Your task to perform on an android device: open app "TextNow: Call + Text Unlimited" (install if not already installed) Image 0: 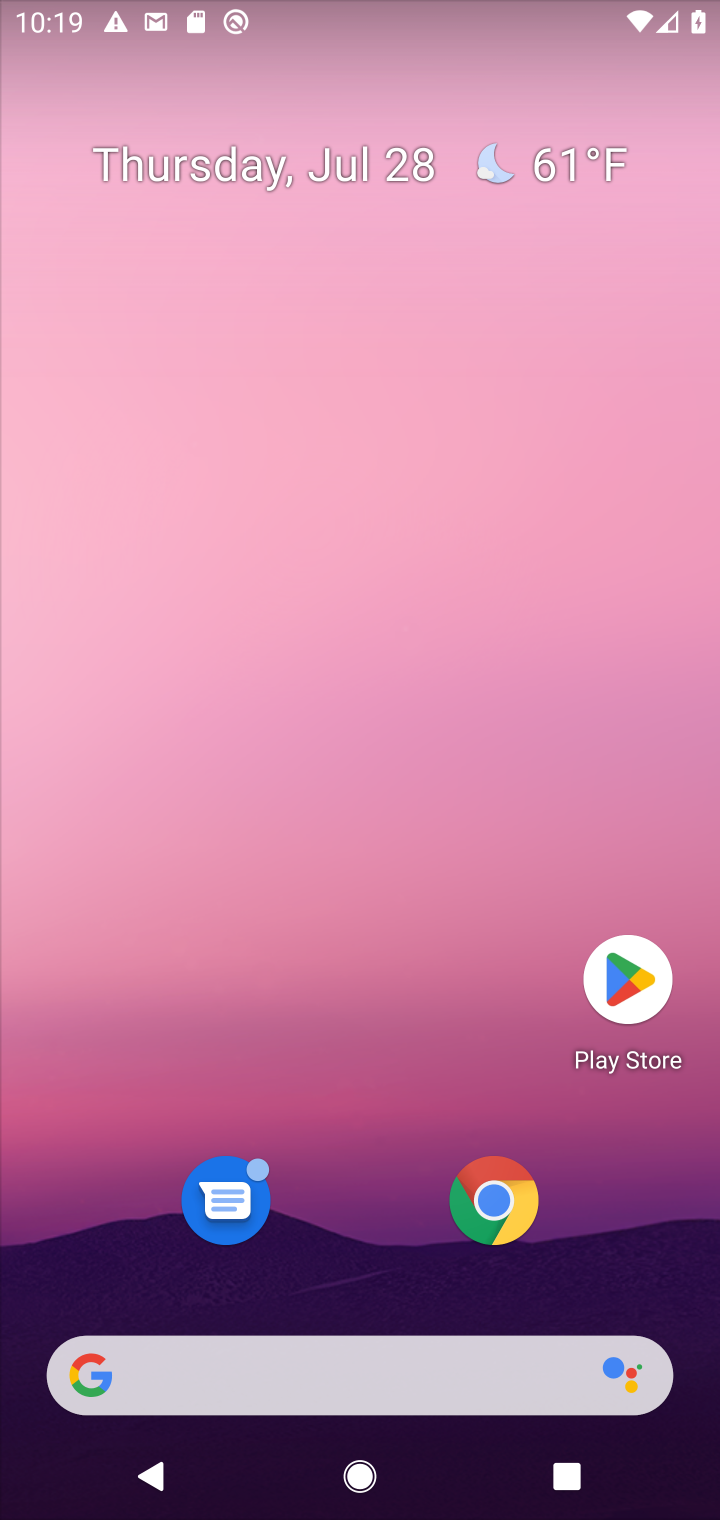
Step 0: press home button
Your task to perform on an android device: open app "TextNow: Call + Text Unlimited" (install if not already installed) Image 1: 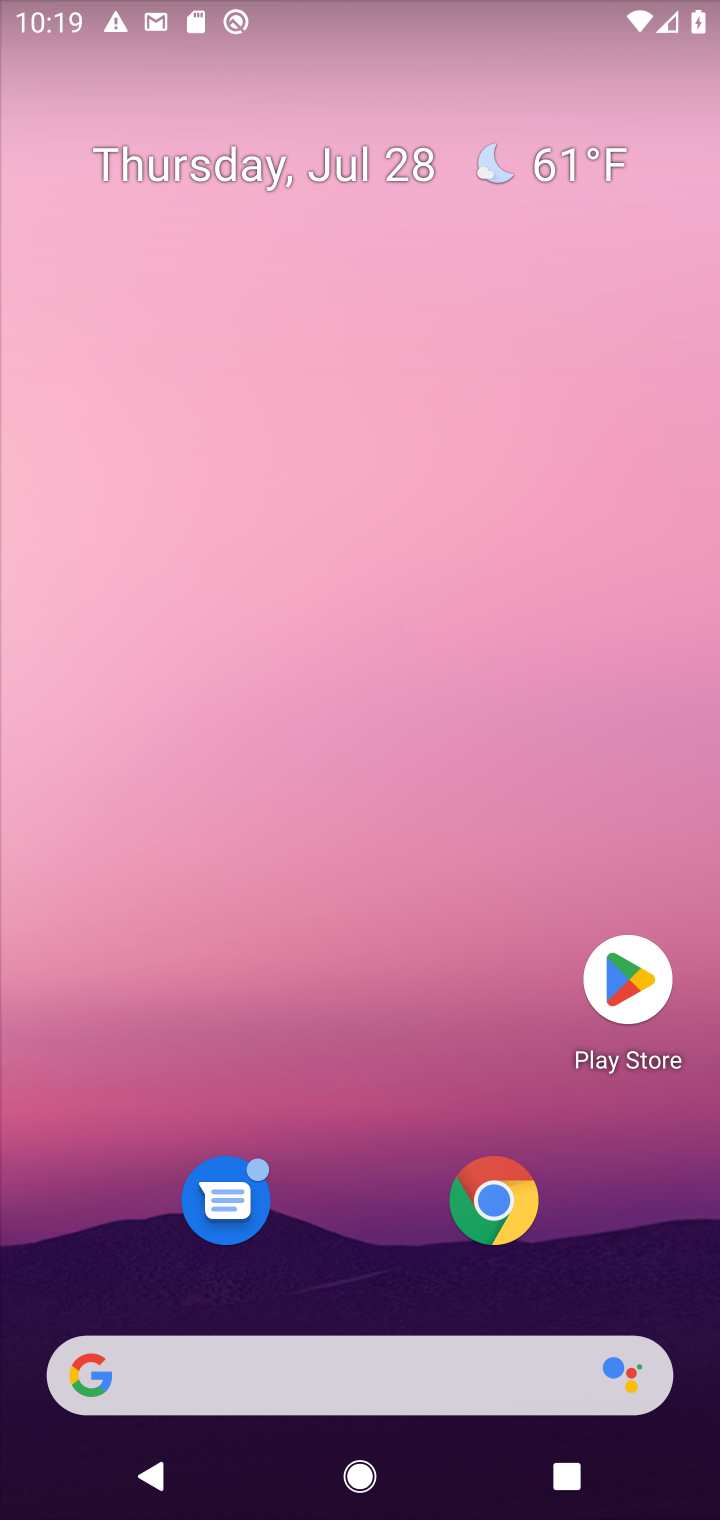
Step 1: click (625, 984)
Your task to perform on an android device: open app "TextNow: Call + Text Unlimited" (install if not already installed) Image 2: 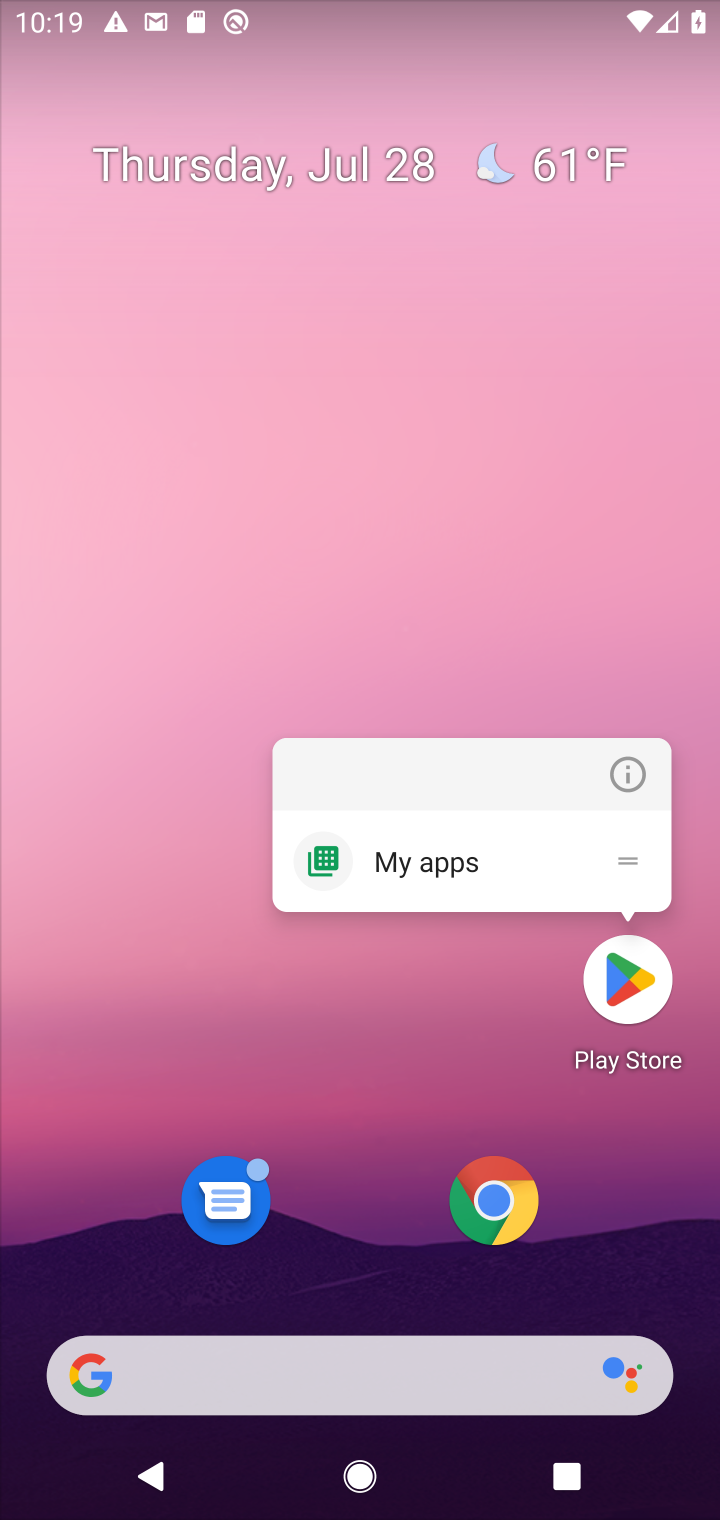
Step 2: click (625, 995)
Your task to perform on an android device: open app "TextNow: Call + Text Unlimited" (install if not already installed) Image 3: 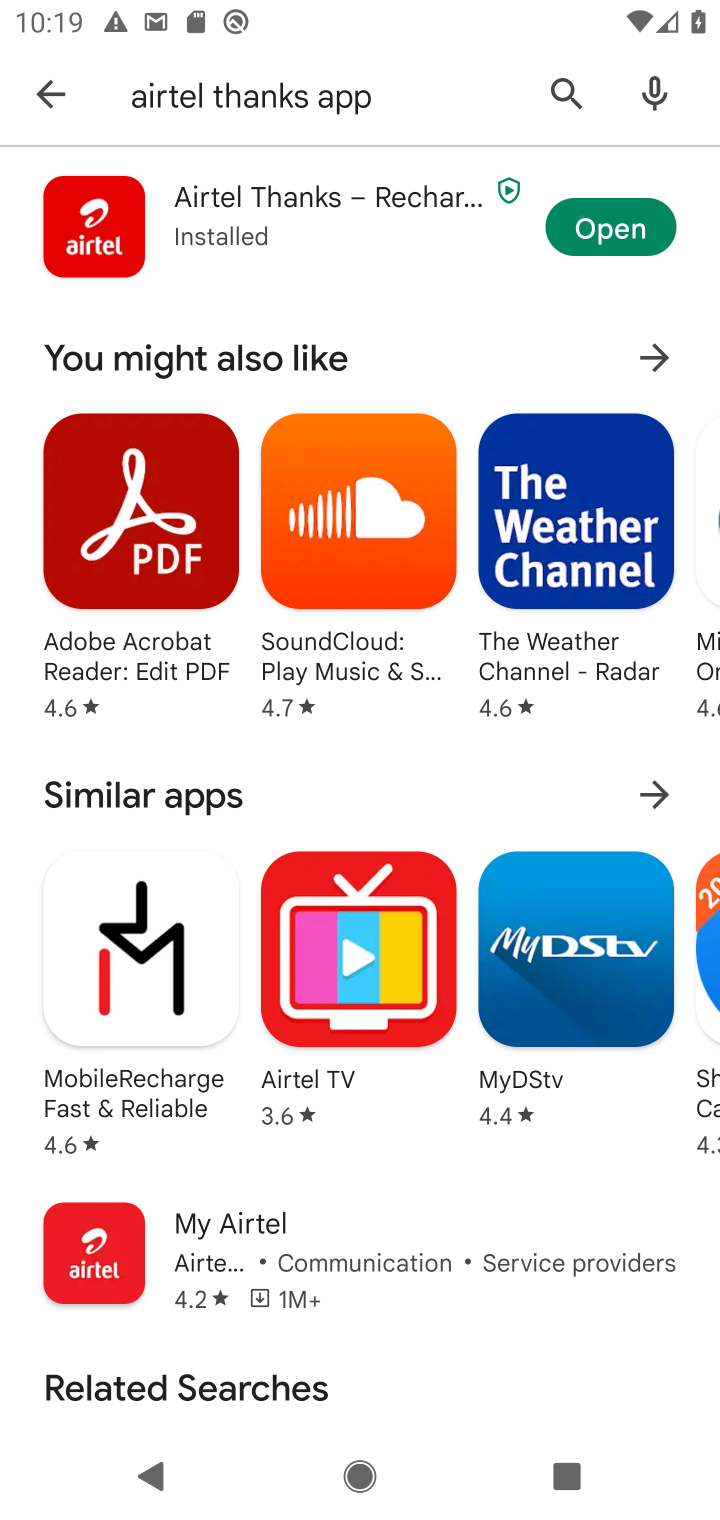
Step 3: click (572, 83)
Your task to perform on an android device: open app "TextNow: Call + Text Unlimited" (install if not already installed) Image 4: 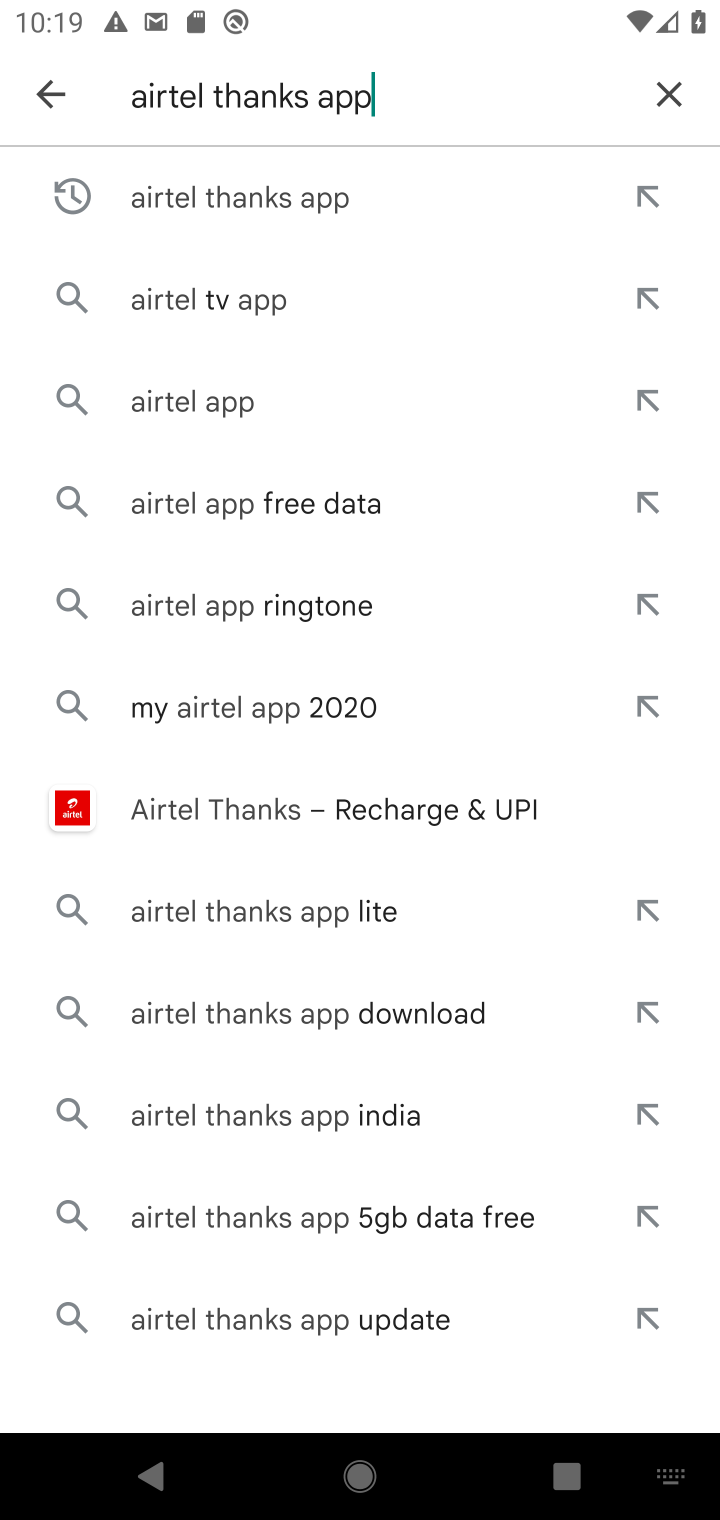
Step 4: click (663, 76)
Your task to perform on an android device: open app "TextNow: Call + Text Unlimited" (install if not already installed) Image 5: 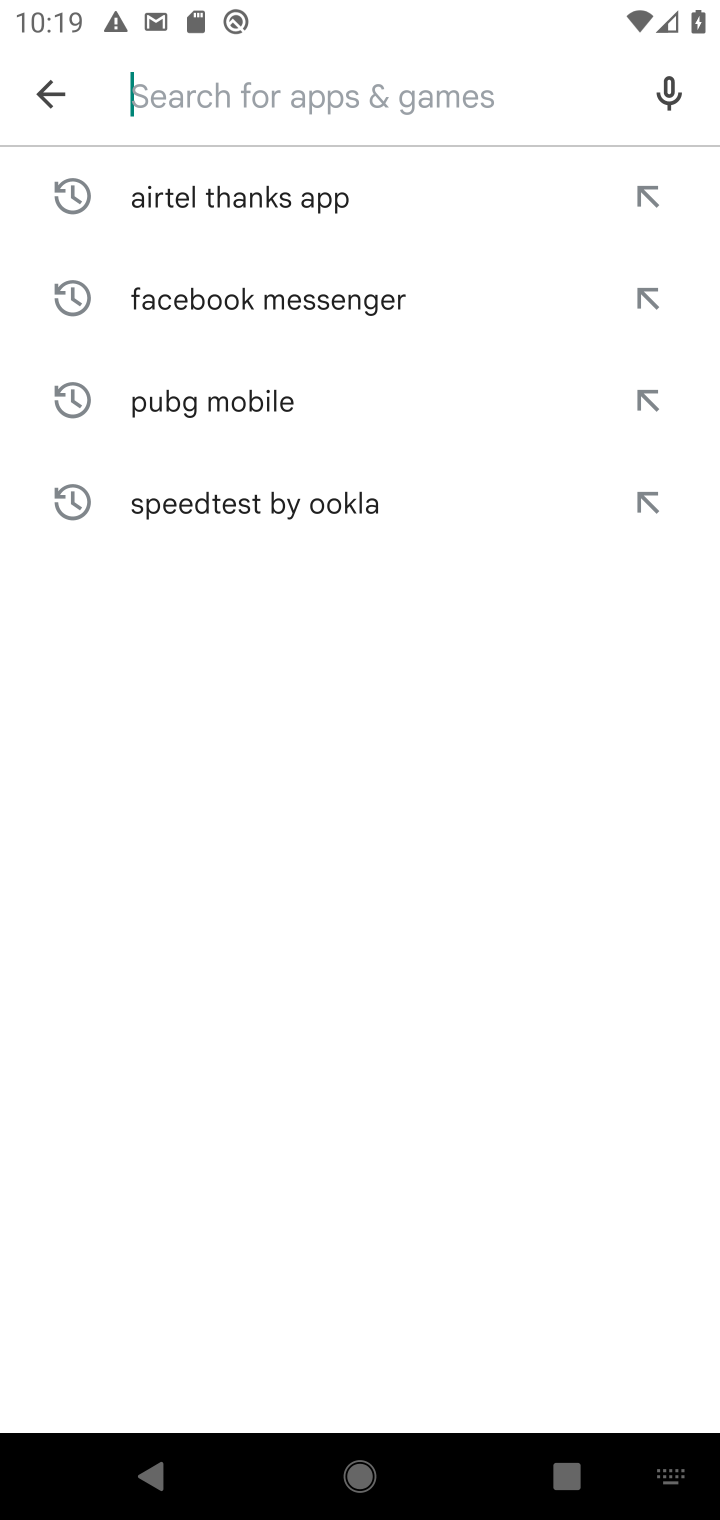
Step 5: type "TextNow: Call + Text Unlimited"
Your task to perform on an android device: open app "TextNow: Call + Text Unlimited" (install if not already installed) Image 6: 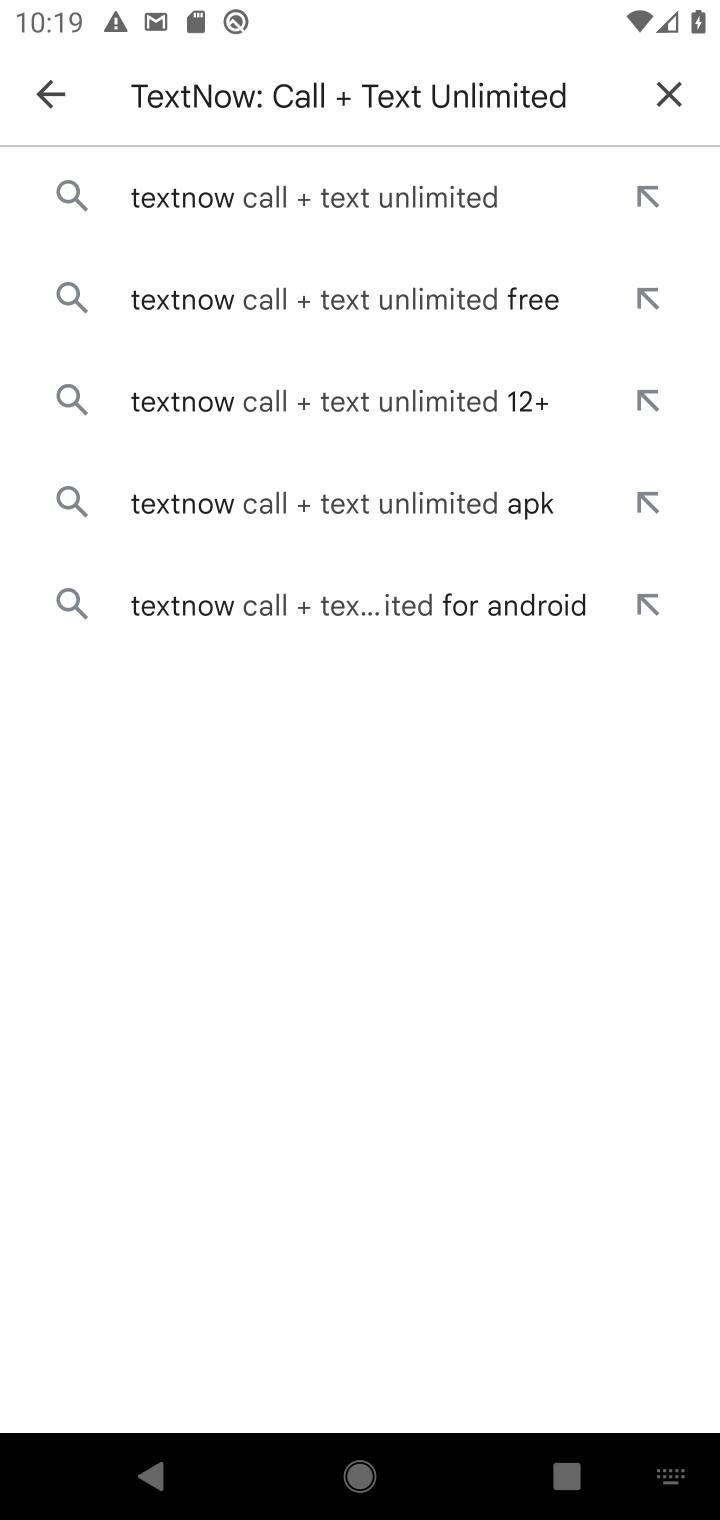
Step 6: click (342, 187)
Your task to perform on an android device: open app "TextNow: Call + Text Unlimited" (install if not already installed) Image 7: 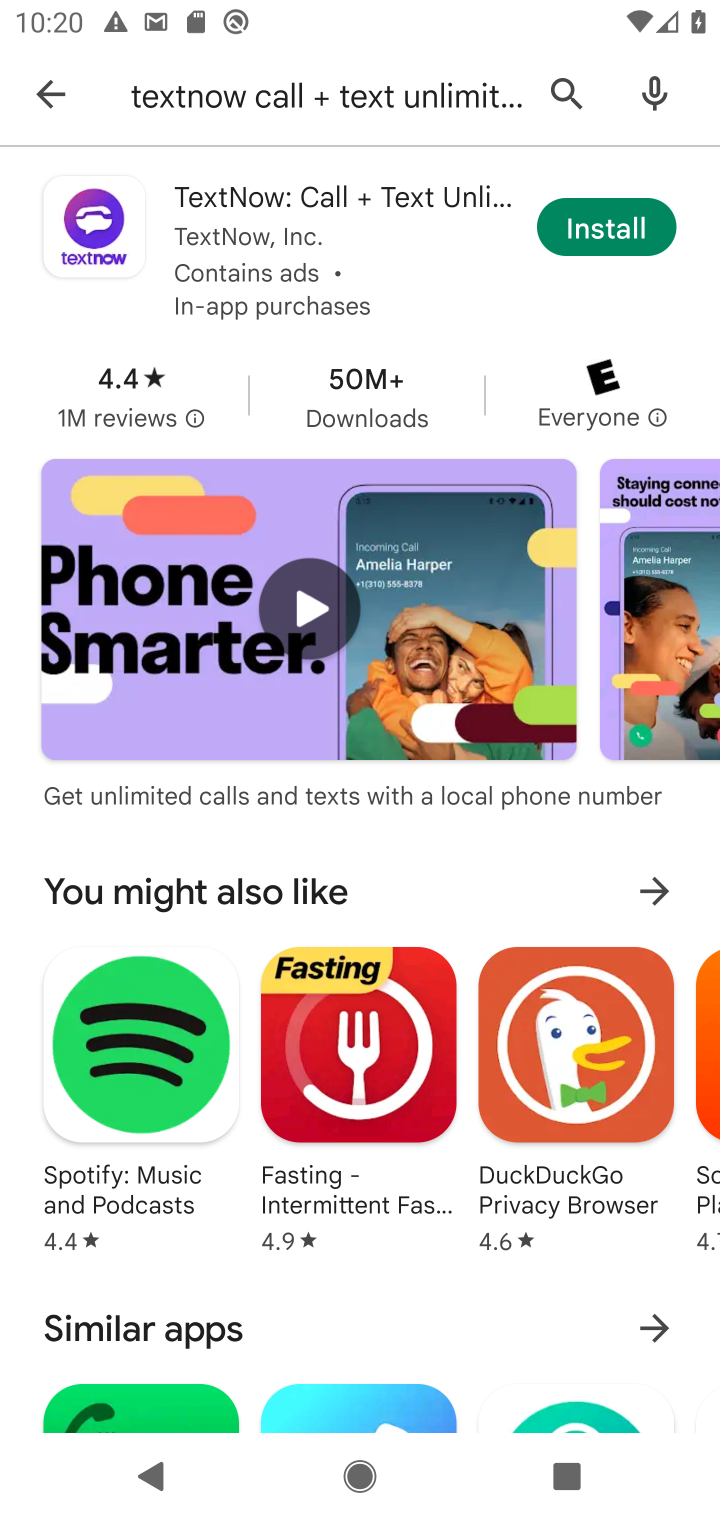
Step 7: click (609, 234)
Your task to perform on an android device: open app "TextNow: Call + Text Unlimited" (install if not already installed) Image 8: 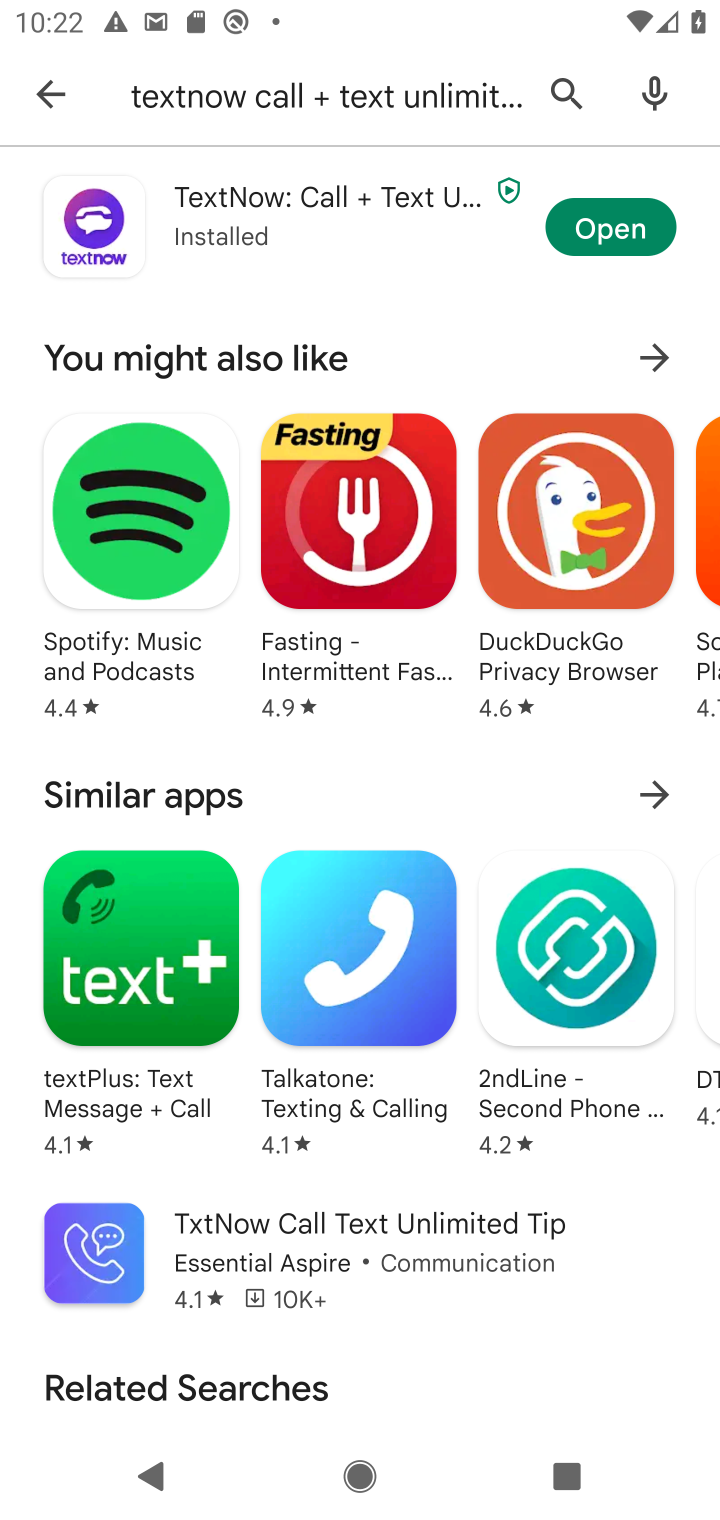
Step 8: click (638, 217)
Your task to perform on an android device: open app "TextNow: Call + Text Unlimited" (install if not already installed) Image 9: 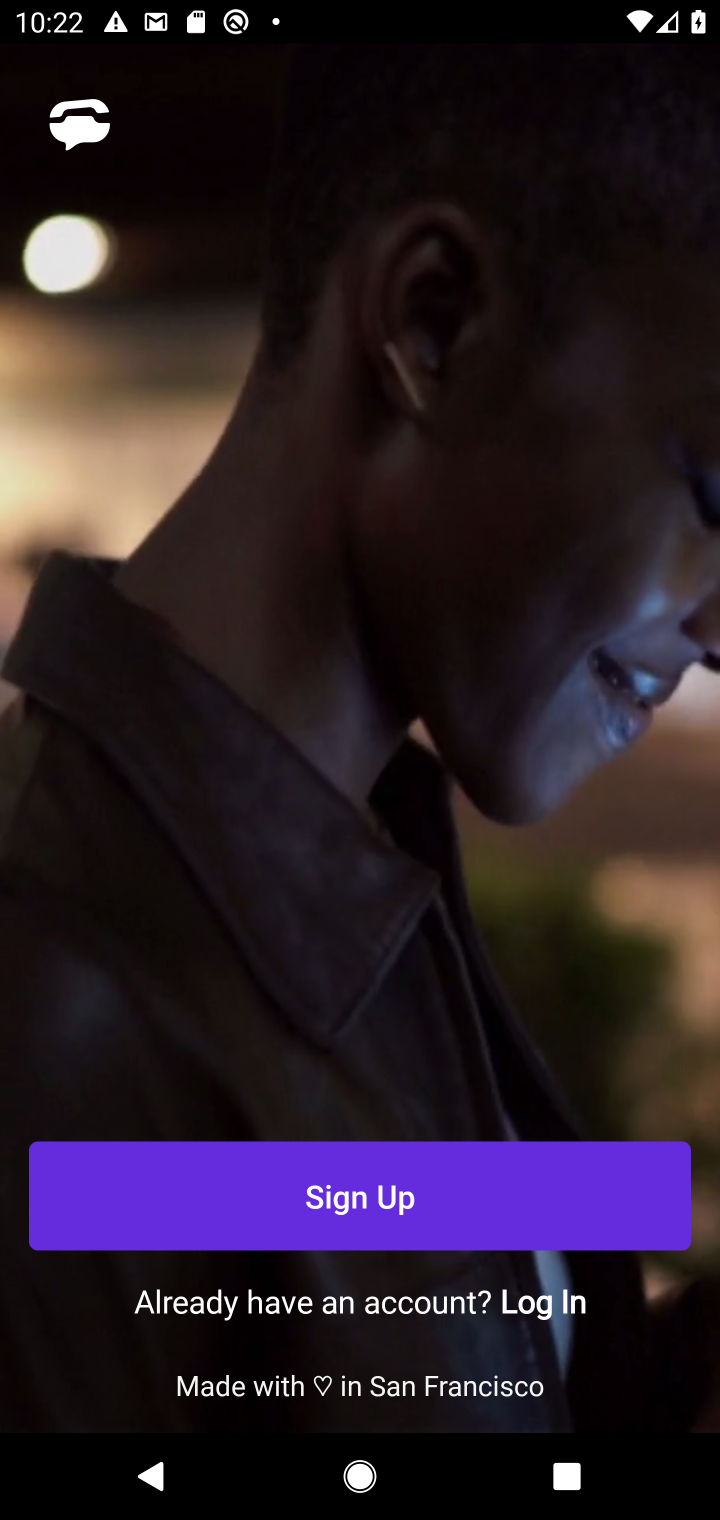
Step 9: task complete